Your task to perform on an android device: change the upload size in google photos Image 0: 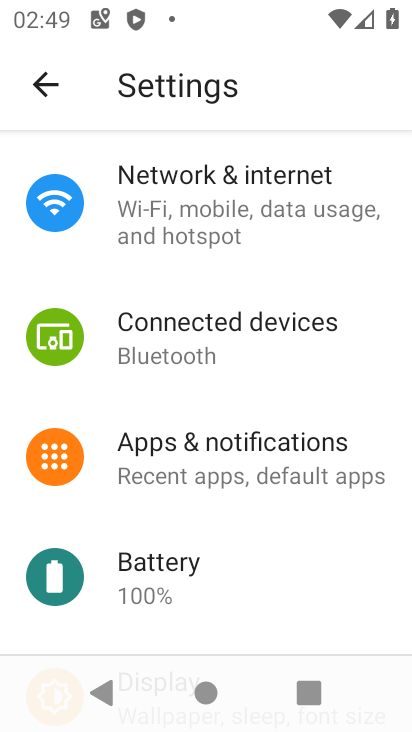
Step 0: press home button
Your task to perform on an android device: change the upload size in google photos Image 1: 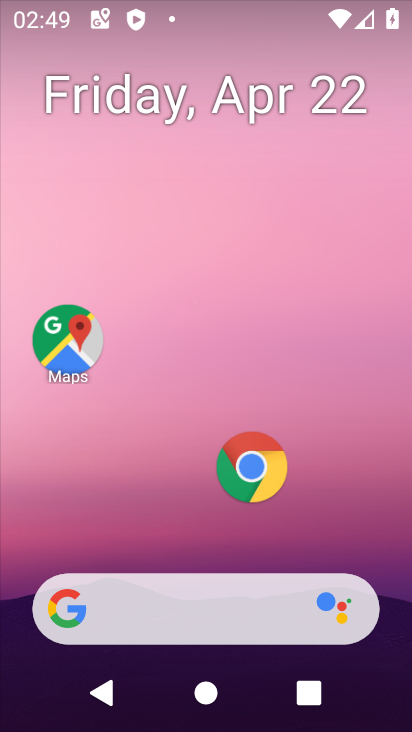
Step 1: drag from (170, 443) to (206, 202)
Your task to perform on an android device: change the upload size in google photos Image 2: 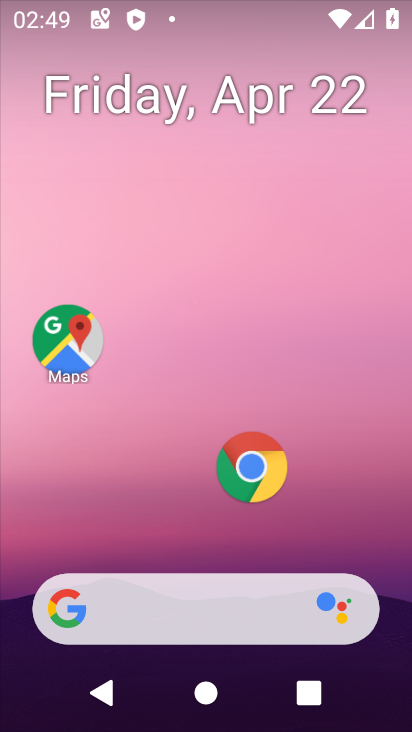
Step 2: drag from (156, 493) to (224, 158)
Your task to perform on an android device: change the upload size in google photos Image 3: 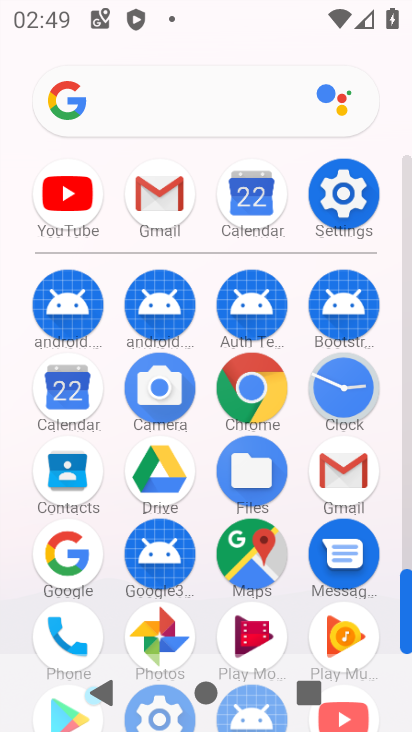
Step 3: click (165, 643)
Your task to perform on an android device: change the upload size in google photos Image 4: 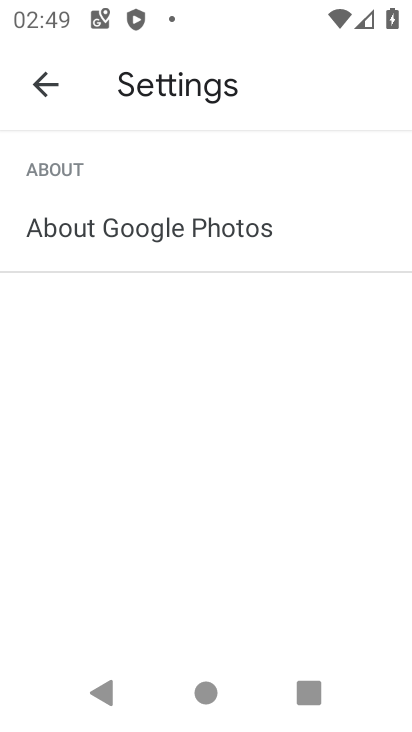
Step 4: click (53, 87)
Your task to perform on an android device: change the upload size in google photos Image 5: 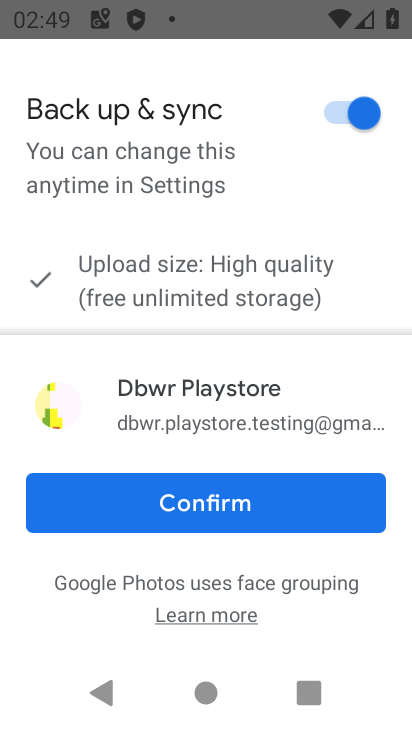
Step 5: click (204, 523)
Your task to perform on an android device: change the upload size in google photos Image 6: 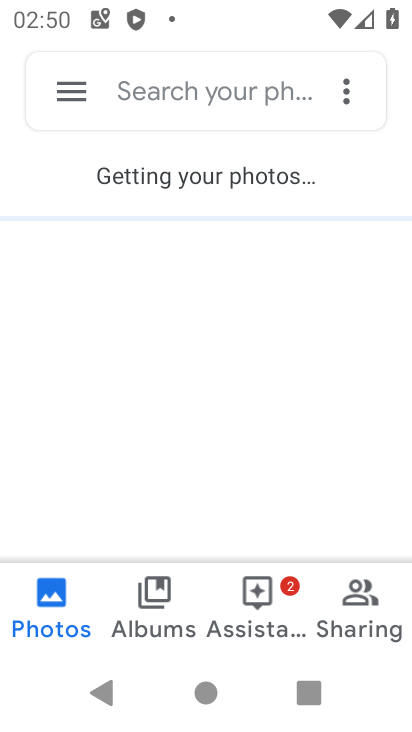
Step 6: click (63, 98)
Your task to perform on an android device: change the upload size in google photos Image 7: 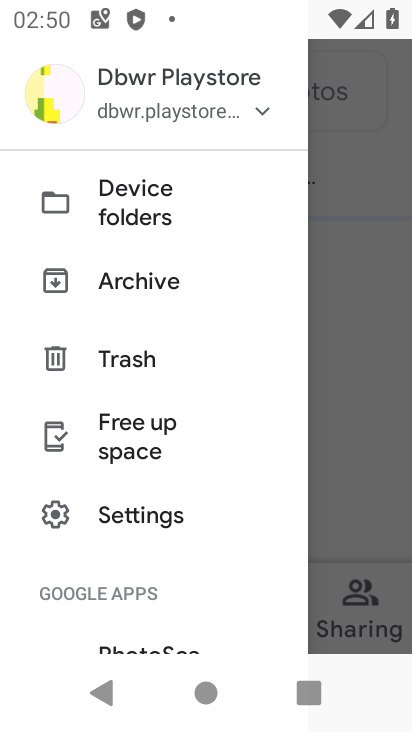
Step 7: drag from (142, 508) to (202, 183)
Your task to perform on an android device: change the upload size in google photos Image 8: 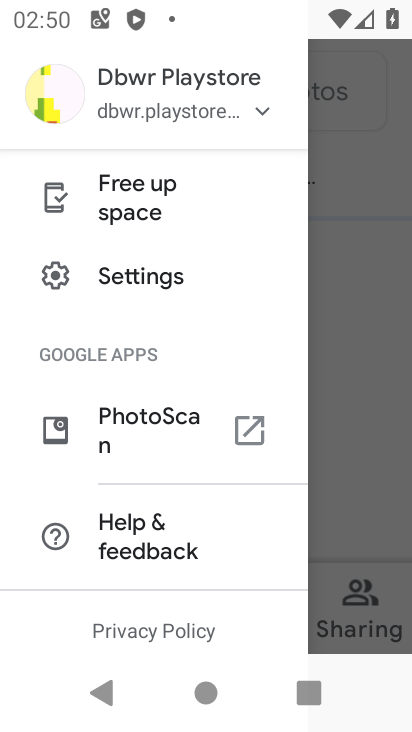
Step 8: click (147, 267)
Your task to perform on an android device: change the upload size in google photos Image 9: 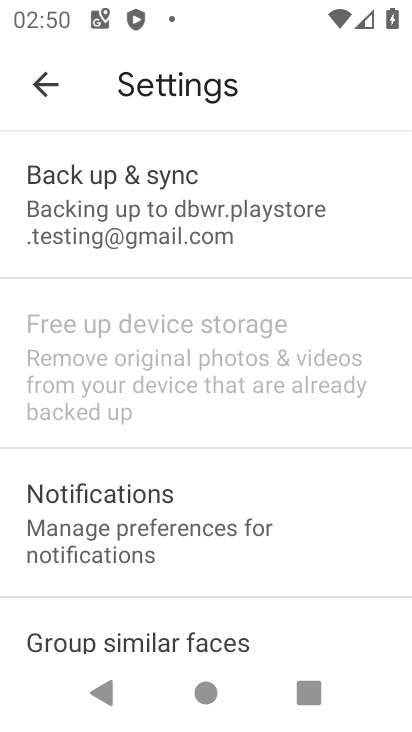
Step 9: click (156, 221)
Your task to perform on an android device: change the upload size in google photos Image 10: 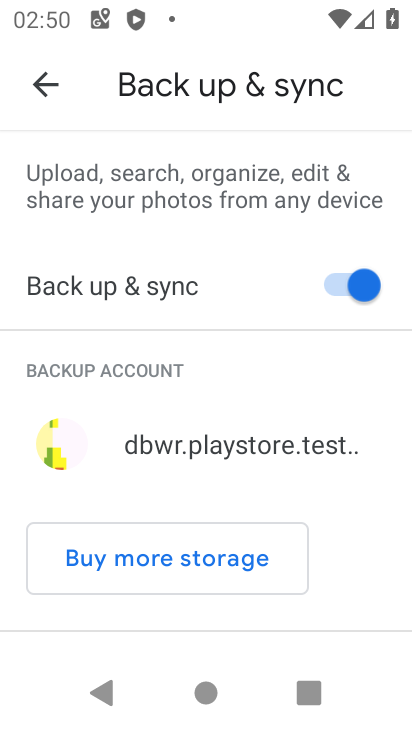
Step 10: drag from (144, 440) to (199, 189)
Your task to perform on an android device: change the upload size in google photos Image 11: 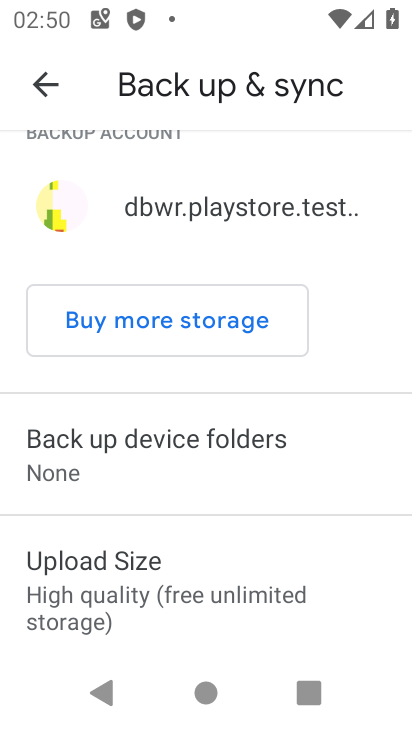
Step 11: click (115, 564)
Your task to perform on an android device: change the upload size in google photos Image 12: 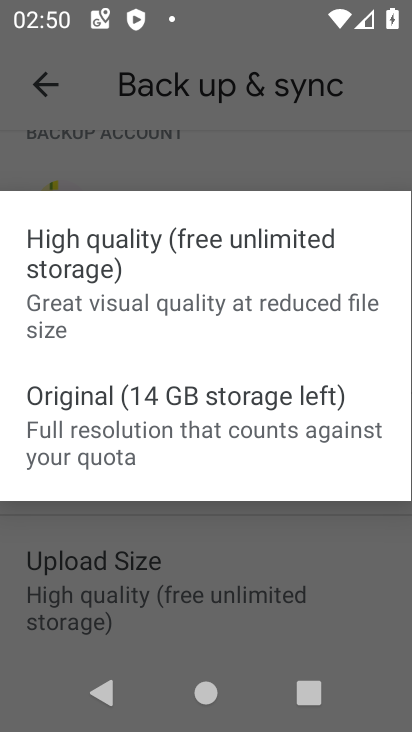
Step 12: click (175, 422)
Your task to perform on an android device: change the upload size in google photos Image 13: 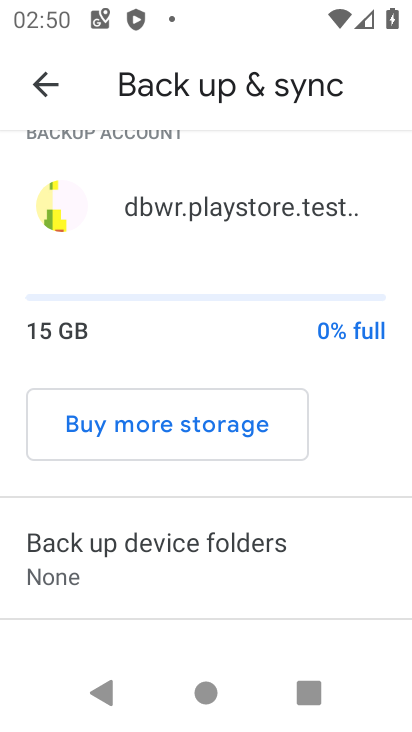
Step 13: task complete